Your task to perform on an android device: Open accessibility settings Image 0: 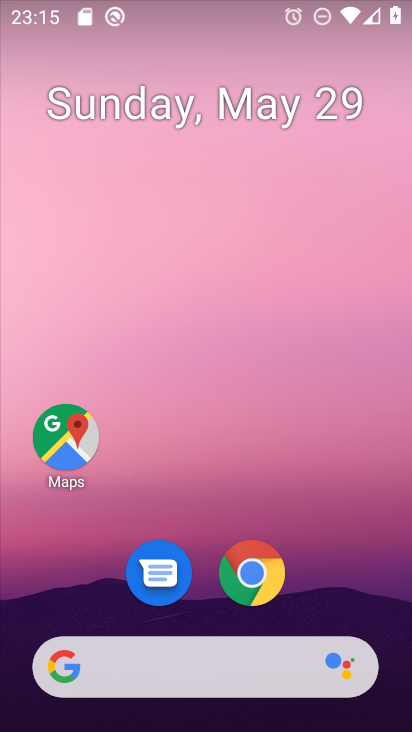
Step 0: drag from (253, 460) to (248, 3)
Your task to perform on an android device: Open accessibility settings Image 1: 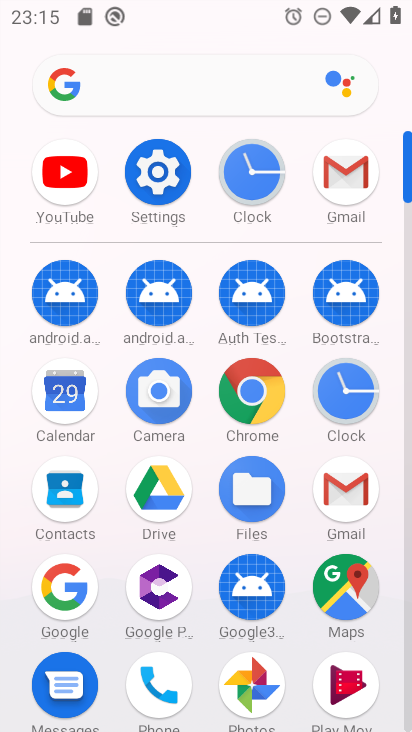
Step 1: click (170, 158)
Your task to perform on an android device: Open accessibility settings Image 2: 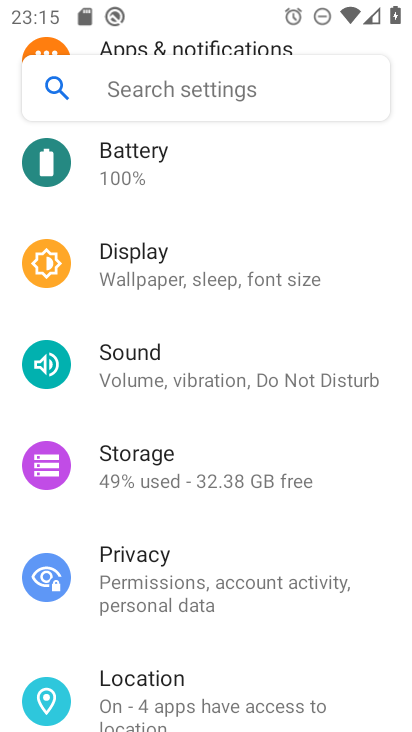
Step 2: drag from (211, 531) to (235, 44)
Your task to perform on an android device: Open accessibility settings Image 3: 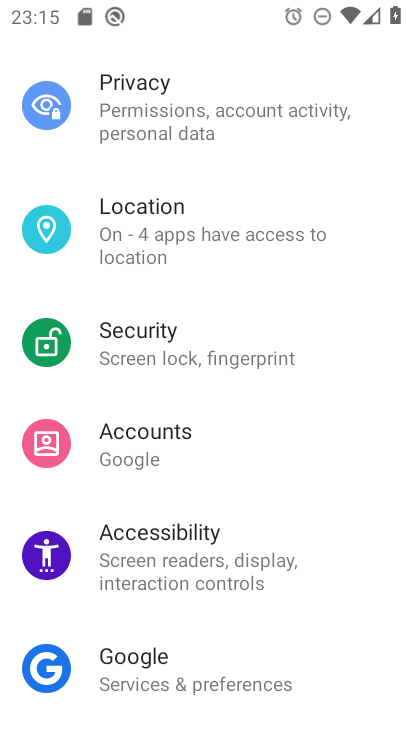
Step 3: click (226, 555)
Your task to perform on an android device: Open accessibility settings Image 4: 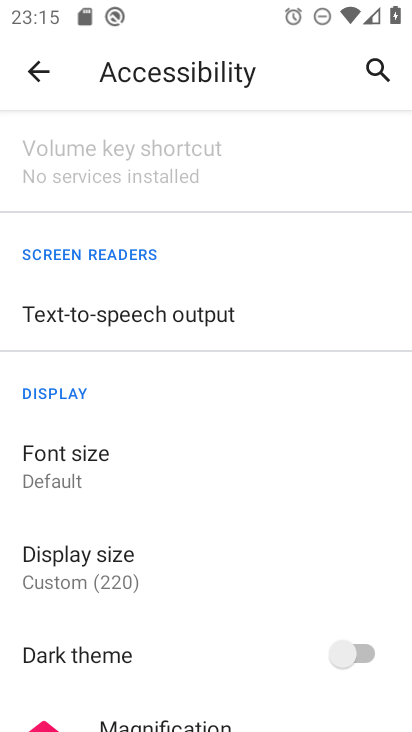
Step 4: task complete